Your task to perform on an android device: Play the new Maroon 5 video on YouTube Image 0: 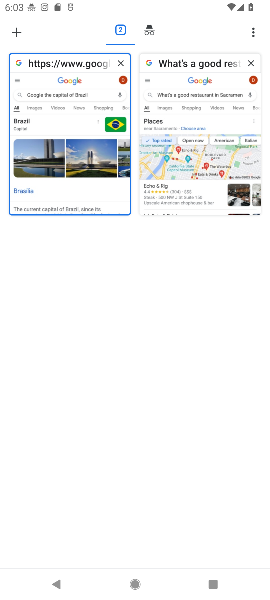
Step 0: press home button
Your task to perform on an android device: Play the new Maroon 5 video on YouTube Image 1: 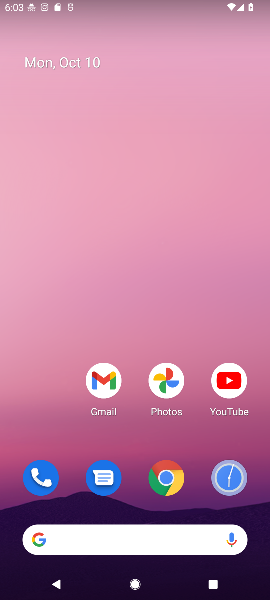
Step 1: click (232, 382)
Your task to perform on an android device: Play the new Maroon 5 video on YouTube Image 2: 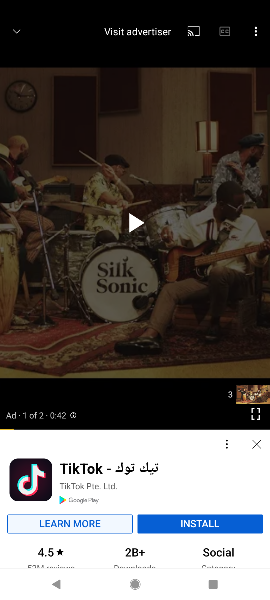
Step 2: click (20, 27)
Your task to perform on an android device: Play the new Maroon 5 video on YouTube Image 3: 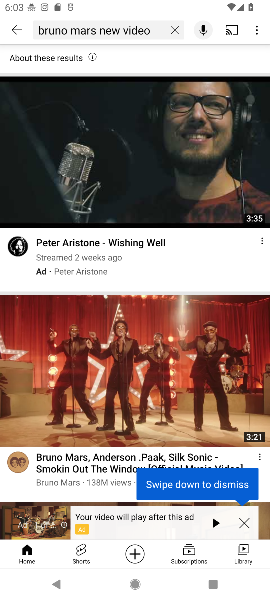
Step 3: click (180, 28)
Your task to perform on an android device: Play the new Maroon 5 video on YouTube Image 4: 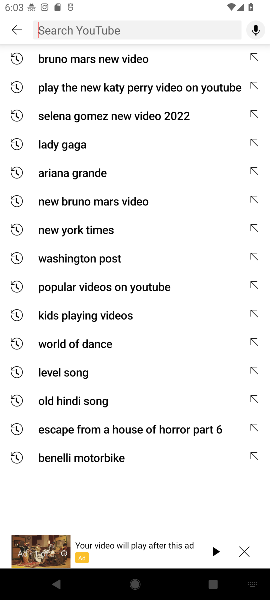
Step 4: type "new Maroon 5 video "
Your task to perform on an android device: Play the new Maroon 5 video on YouTube Image 5: 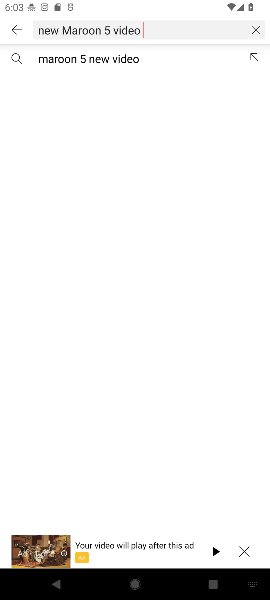
Step 5: click (123, 60)
Your task to perform on an android device: Play the new Maroon 5 video on YouTube Image 6: 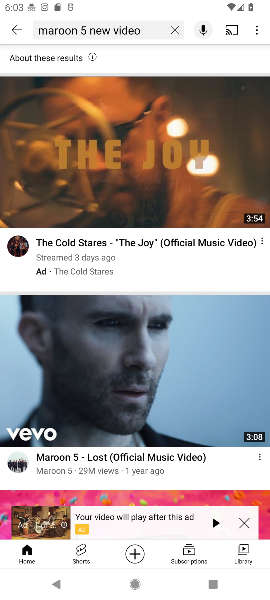
Step 6: click (198, 341)
Your task to perform on an android device: Play the new Maroon 5 video on YouTube Image 7: 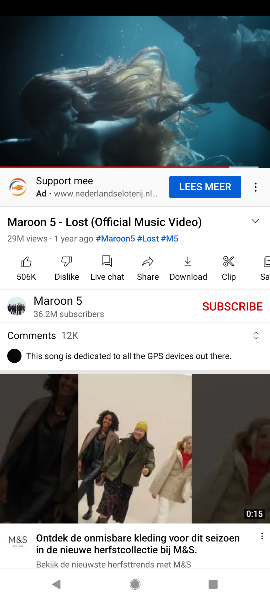
Step 7: task complete